Your task to perform on an android device: Search for sushi restaurants on Maps Image 0: 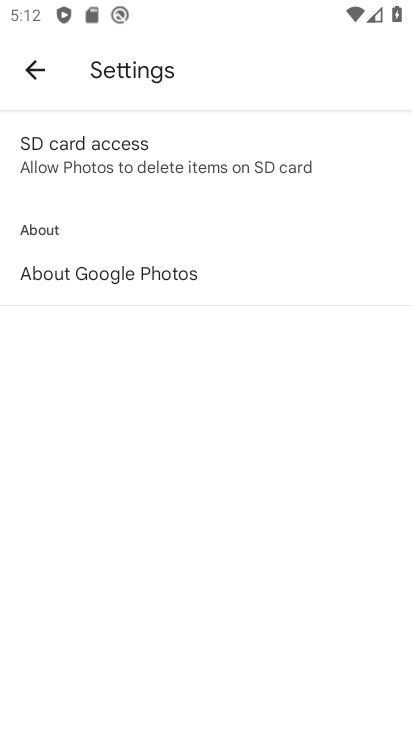
Step 0: press back button
Your task to perform on an android device: Search for sushi restaurants on Maps Image 1: 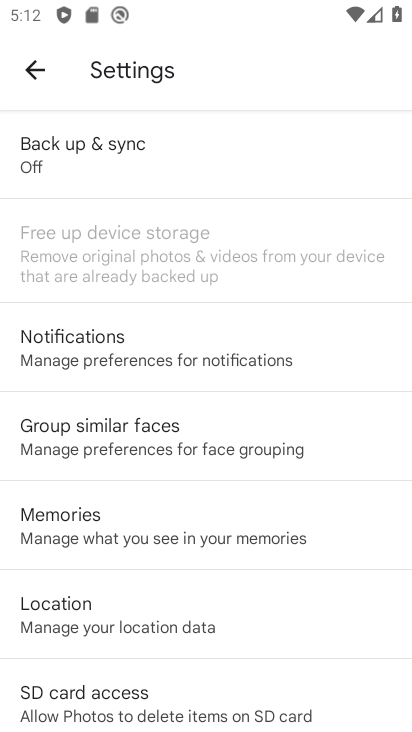
Step 1: press home button
Your task to perform on an android device: Search for sushi restaurants on Maps Image 2: 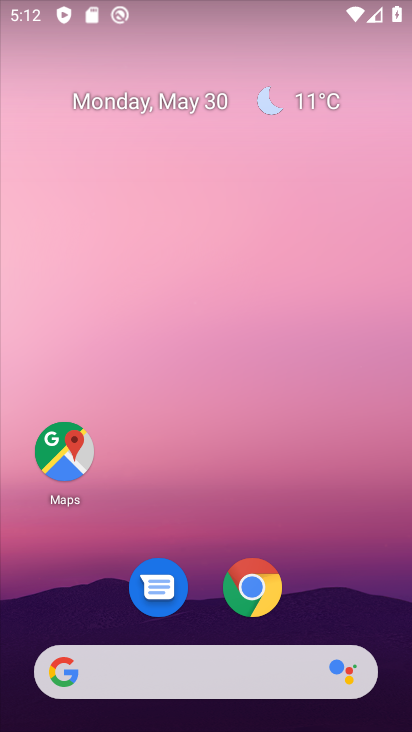
Step 2: drag from (318, 591) to (272, 20)
Your task to perform on an android device: Search for sushi restaurants on Maps Image 3: 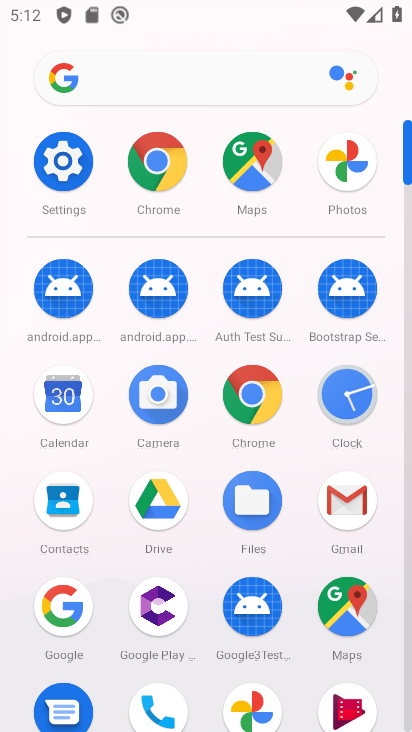
Step 3: drag from (11, 602) to (14, 192)
Your task to perform on an android device: Search for sushi restaurants on Maps Image 4: 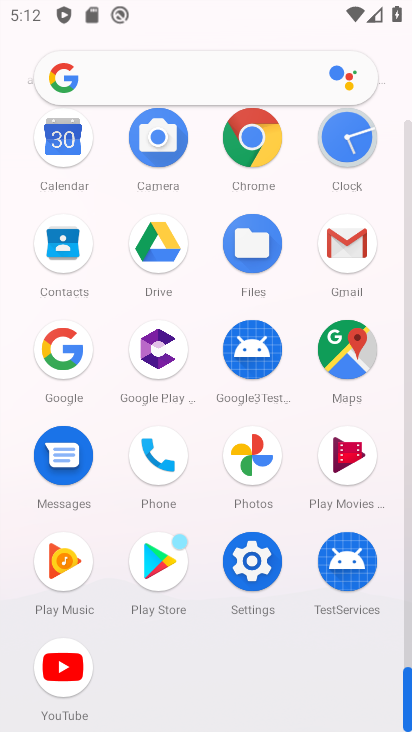
Step 4: click (344, 341)
Your task to perform on an android device: Search for sushi restaurants on Maps Image 5: 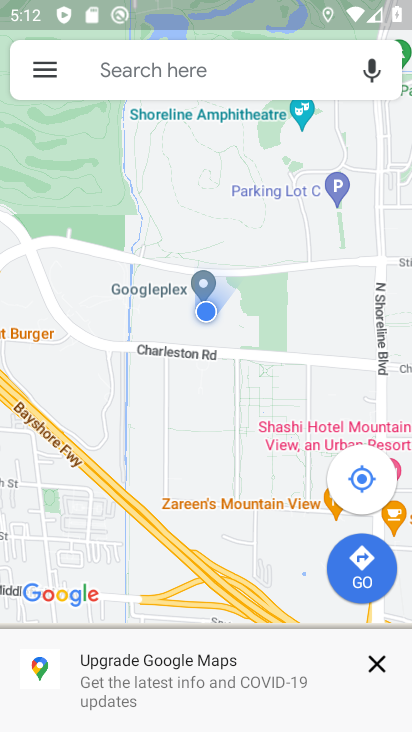
Step 5: click (242, 69)
Your task to perform on an android device: Search for sushi restaurants on Maps Image 6: 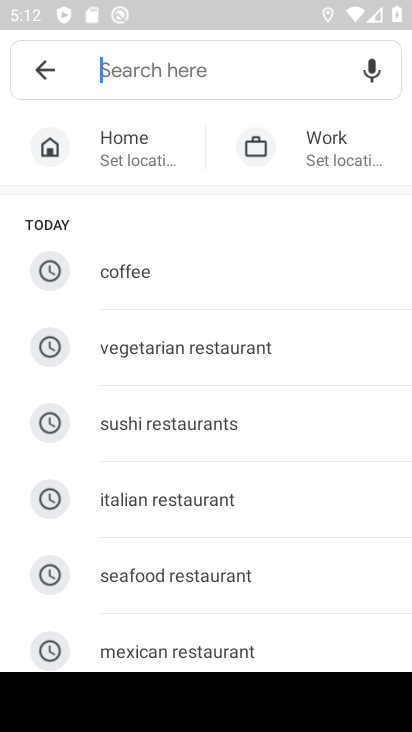
Step 6: drag from (263, 611) to (268, 302)
Your task to perform on an android device: Search for sushi restaurants on Maps Image 7: 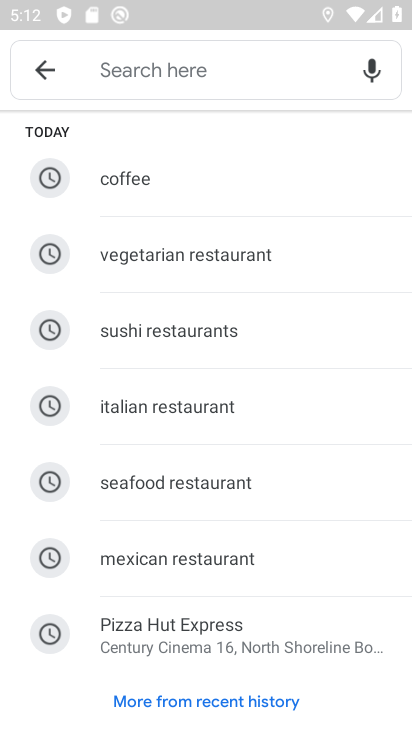
Step 7: click (205, 336)
Your task to perform on an android device: Search for sushi restaurants on Maps Image 8: 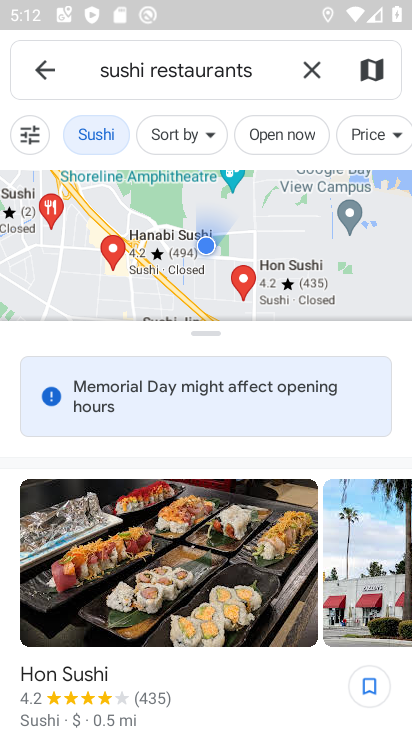
Step 8: task complete